Your task to perform on an android device: Search for seafood restaurants on Google Maps Image 0: 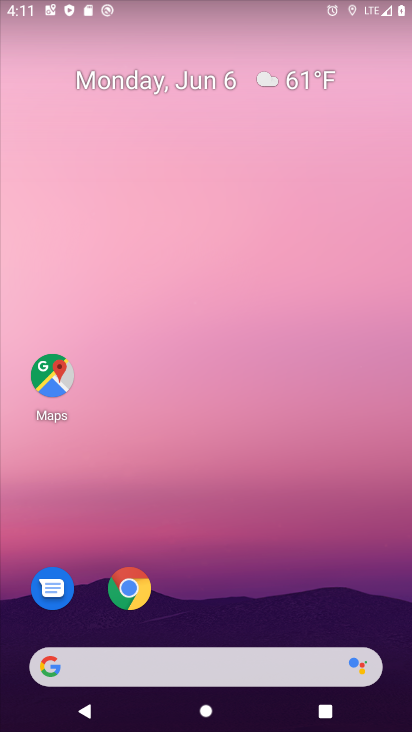
Step 0: click (52, 371)
Your task to perform on an android device: Search for seafood restaurants on Google Maps Image 1: 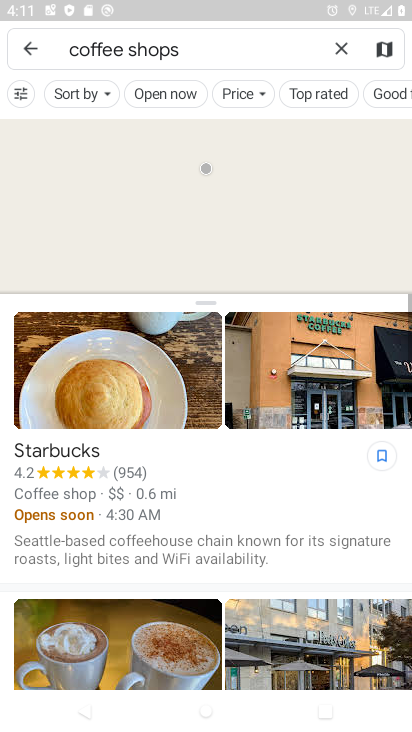
Step 1: click (343, 49)
Your task to perform on an android device: Search for seafood restaurants on Google Maps Image 2: 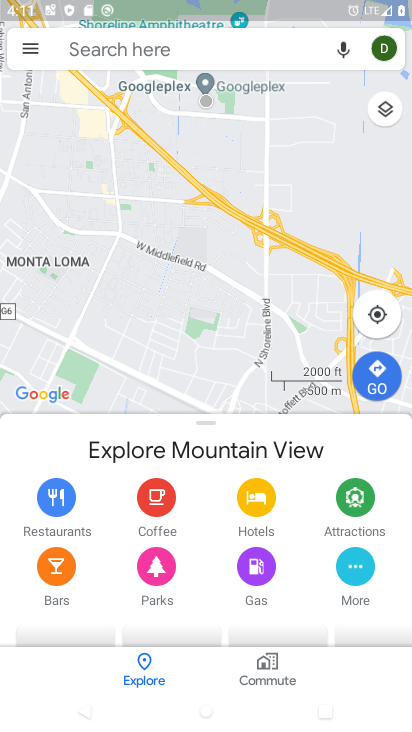
Step 2: click (204, 43)
Your task to perform on an android device: Search for seafood restaurants on Google Maps Image 3: 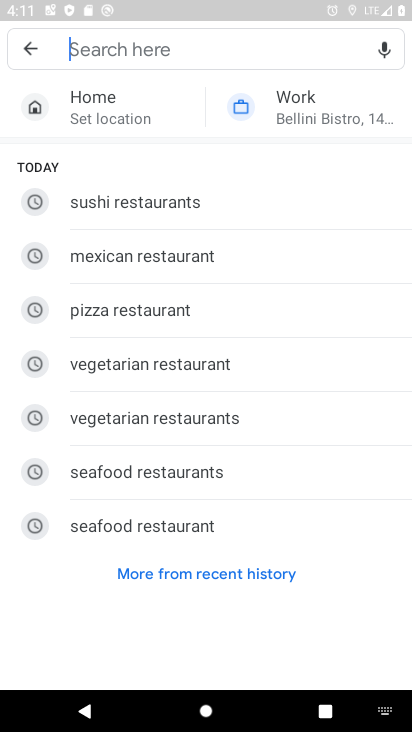
Step 3: click (198, 479)
Your task to perform on an android device: Search for seafood restaurants on Google Maps Image 4: 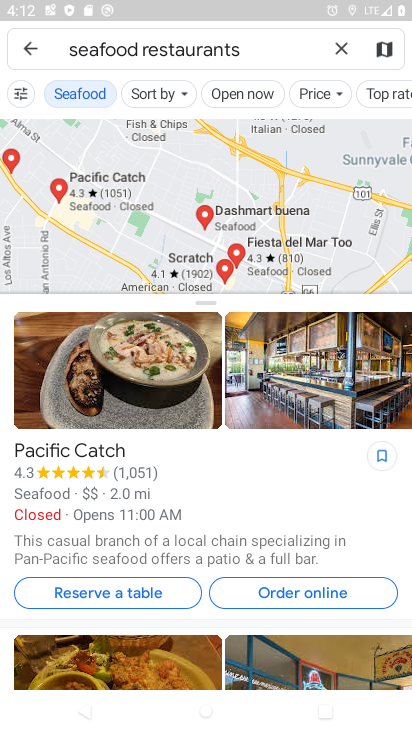
Step 4: task complete